Your task to perform on an android device: turn off priority inbox in the gmail app Image 0: 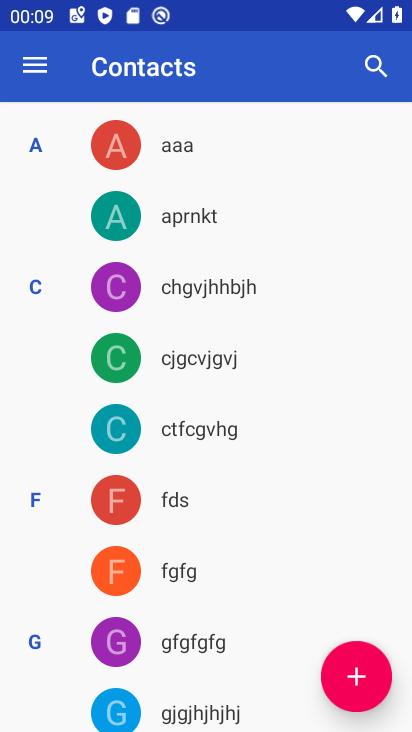
Step 0: press home button
Your task to perform on an android device: turn off priority inbox in the gmail app Image 1: 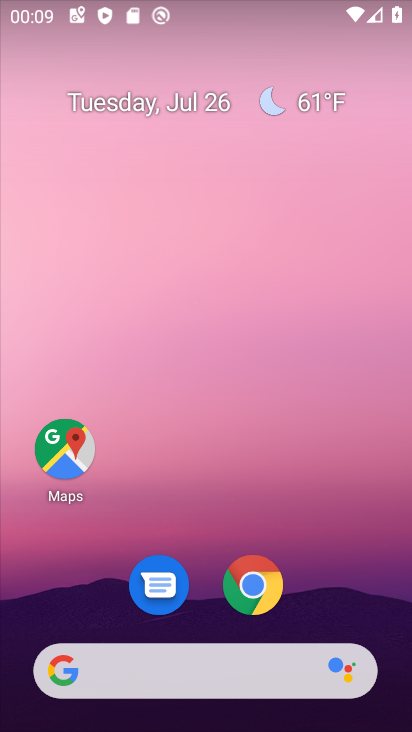
Step 1: drag from (330, 554) to (266, 0)
Your task to perform on an android device: turn off priority inbox in the gmail app Image 2: 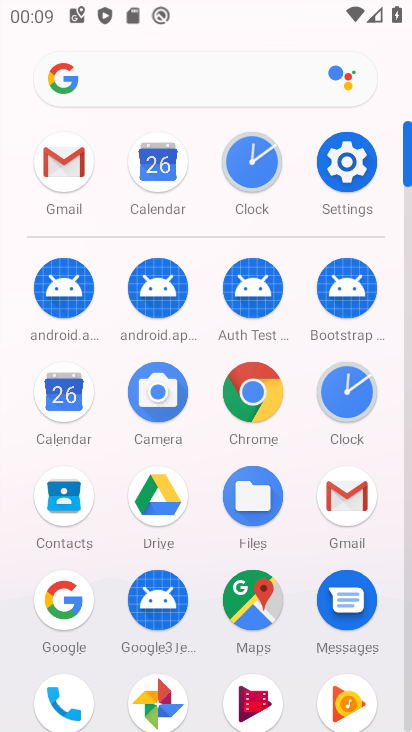
Step 2: click (73, 171)
Your task to perform on an android device: turn off priority inbox in the gmail app Image 3: 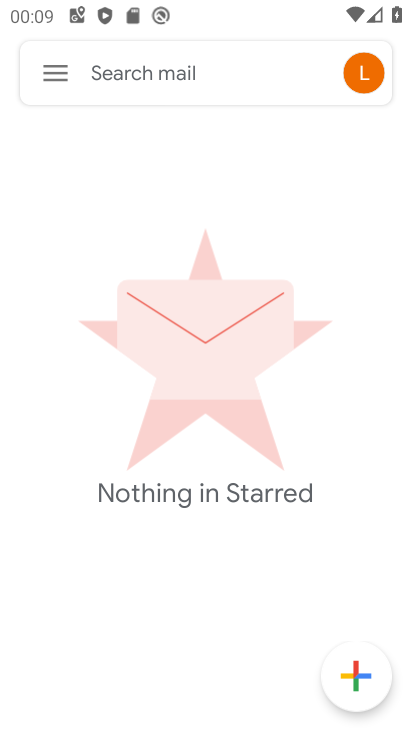
Step 3: click (58, 72)
Your task to perform on an android device: turn off priority inbox in the gmail app Image 4: 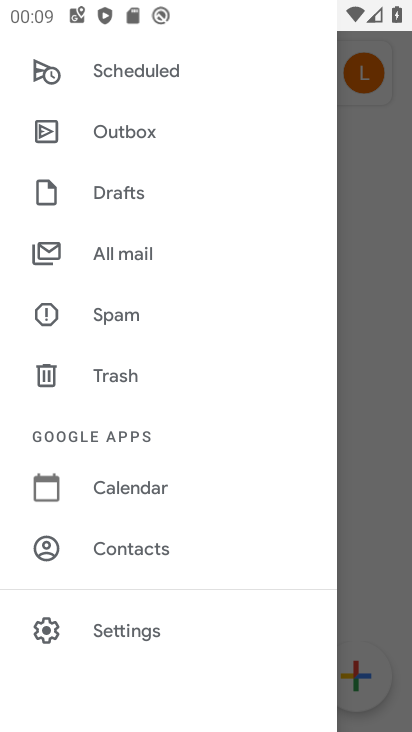
Step 4: click (134, 634)
Your task to perform on an android device: turn off priority inbox in the gmail app Image 5: 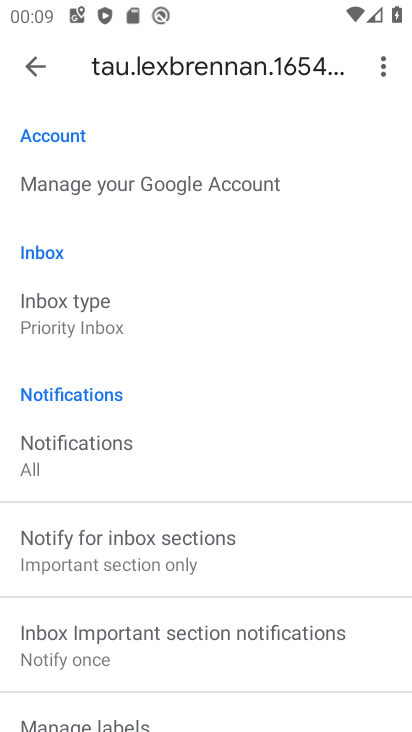
Step 5: click (90, 293)
Your task to perform on an android device: turn off priority inbox in the gmail app Image 6: 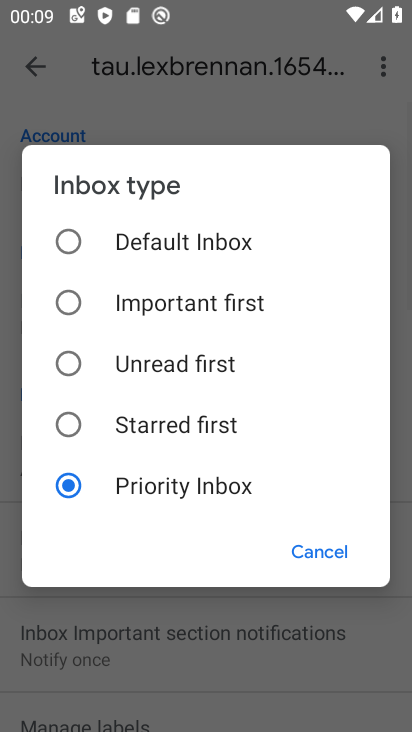
Step 6: click (66, 226)
Your task to perform on an android device: turn off priority inbox in the gmail app Image 7: 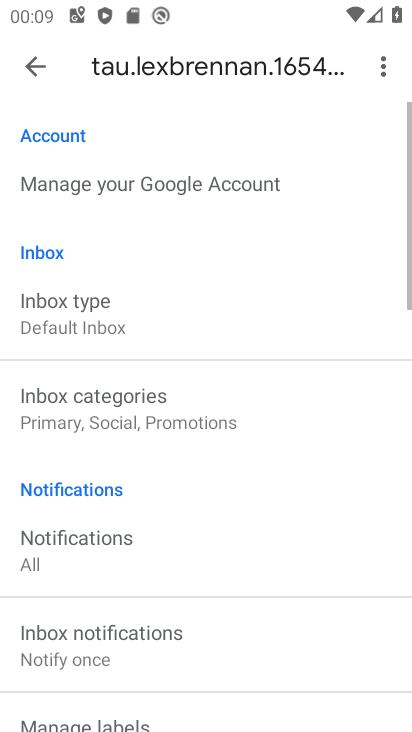
Step 7: task complete